Your task to perform on an android device: What's the weather going to be tomorrow? Image 0: 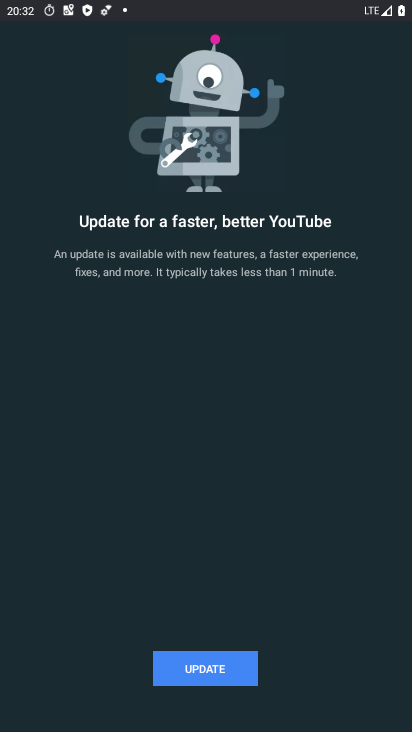
Step 0: press home button
Your task to perform on an android device: What's the weather going to be tomorrow? Image 1: 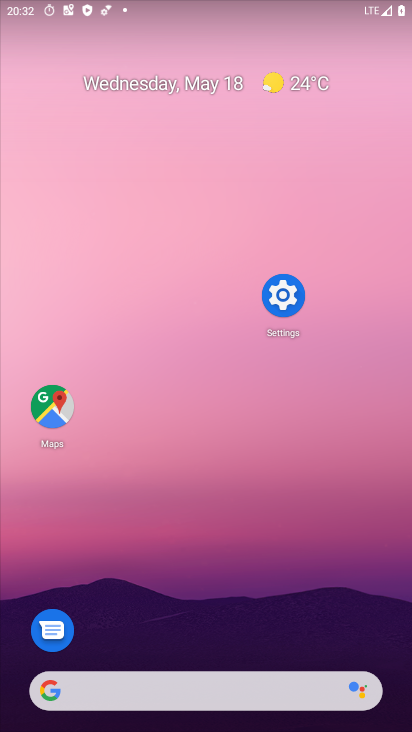
Step 1: drag from (205, 673) to (151, 328)
Your task to perform on an android device: What's the weather going to be tomorrow? Image 2: 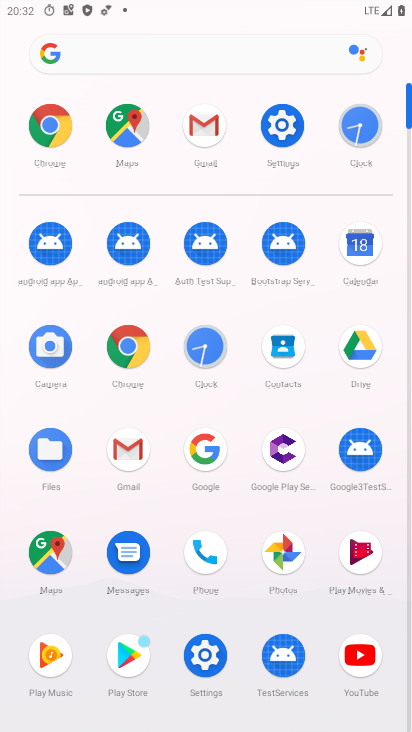
Step 2: click (201, 450)
Your task to perform on an android device: What's the weather going to be tomorrow? Image 3: 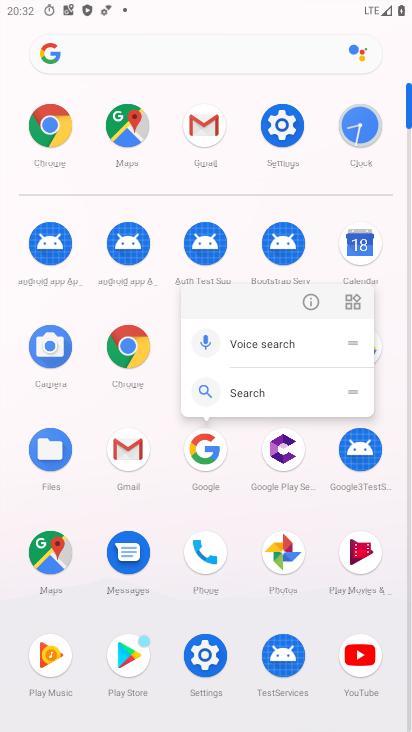
Step 3: click (209, 452)
Your task to perform on an android device: What's the weather going to be tomorrow? Image 4: 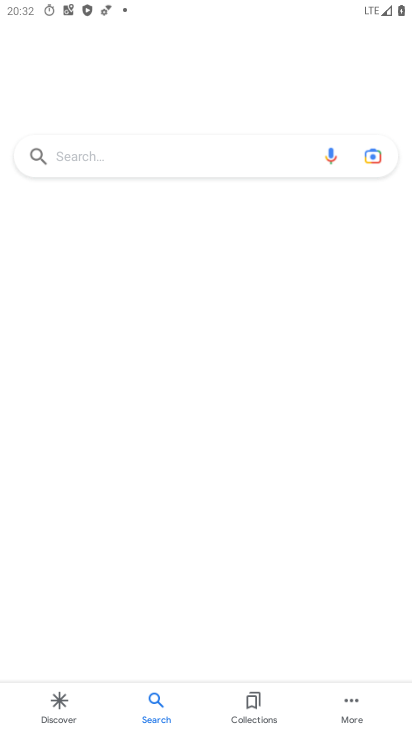
Step 4: click (96, 148)
Your task to perform on an android device: What's the weather going to be tomorrow? Image 5: 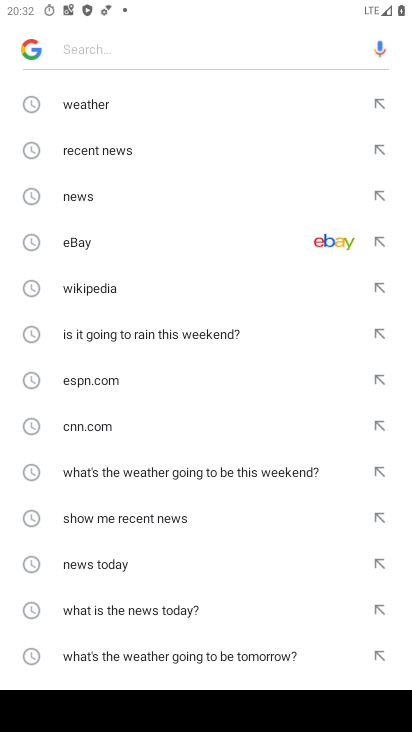
Step 5: click (157, 658)
Your task to perform on an android device: What's the weather going to be tomorrow? Image 6: 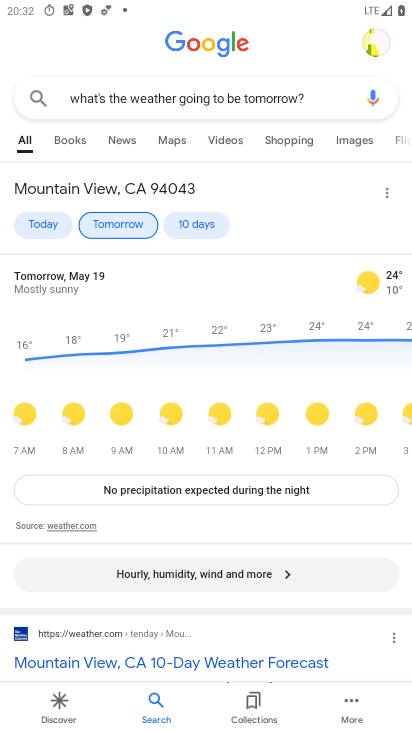
Step 6: click (192, 493)
Your task to perform on an android device: What's the weather going to be tomorrow? Image 7: 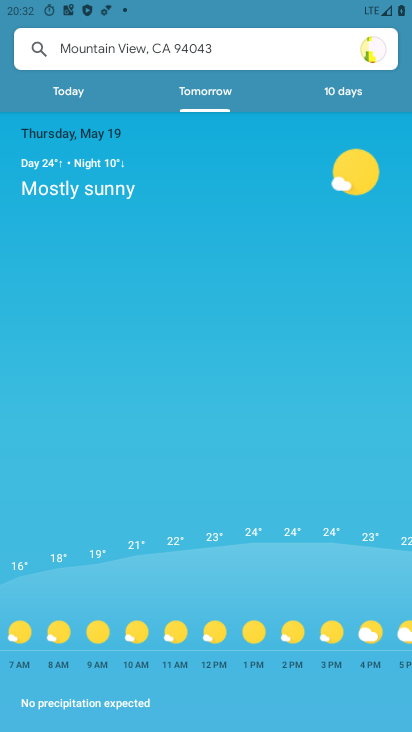
Step 7: task complete